Your task to perform on an android device: Open internet settings Image 0: 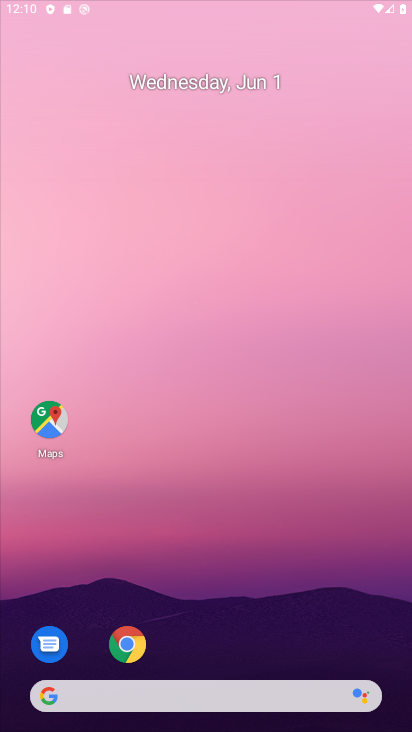
Step 0: press home button
Your task to perform on an android device: Open internet settings Image 1: 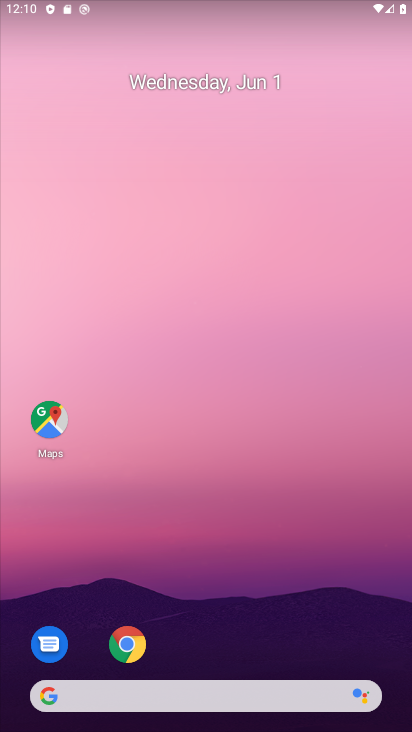
Step 1: drag from (328, 635) to (282, 26)
Your task to perform on an android device: Open internet settings Image 2: 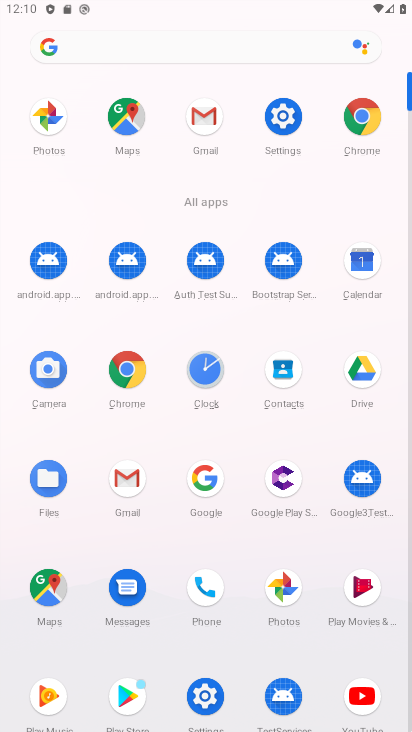
Step 2: click (278, 103)
Your task to perform on an android device: Open internet settings Image 3: 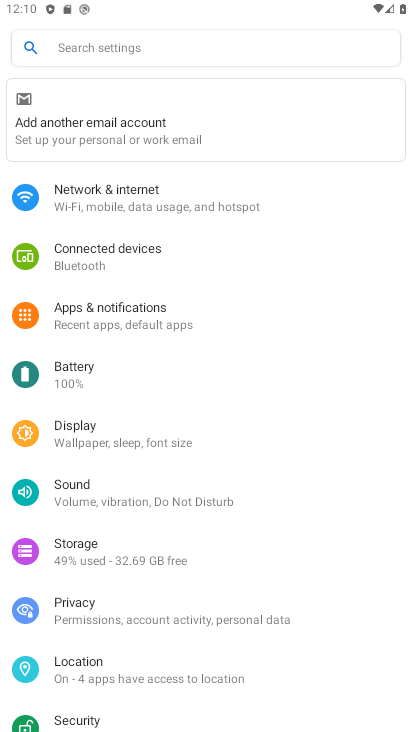
Step 3: click (132, 200)
Your task to perform on an android device: Open internet settings Image 4: 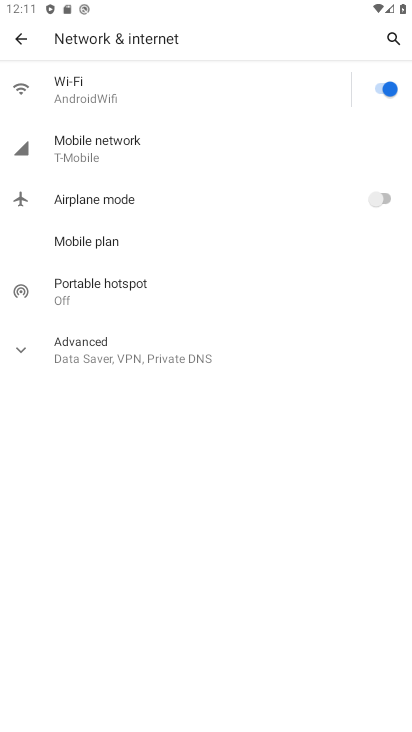
Step 4: task complete